Your task to perform on an android device: check android version Image 0: 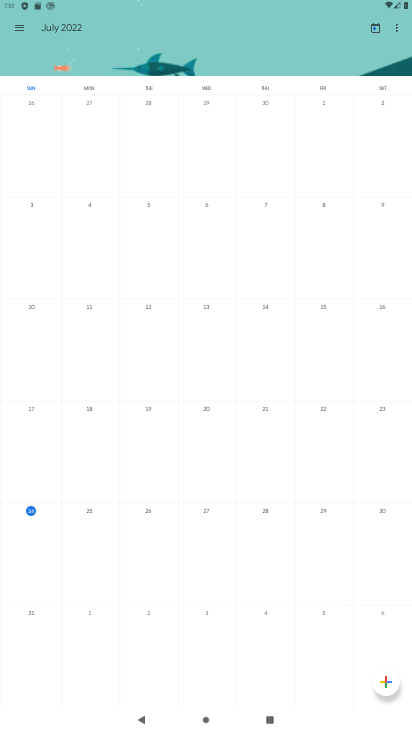
Step 0: press home button
Your task to perform on an android device: check android version Image 1: 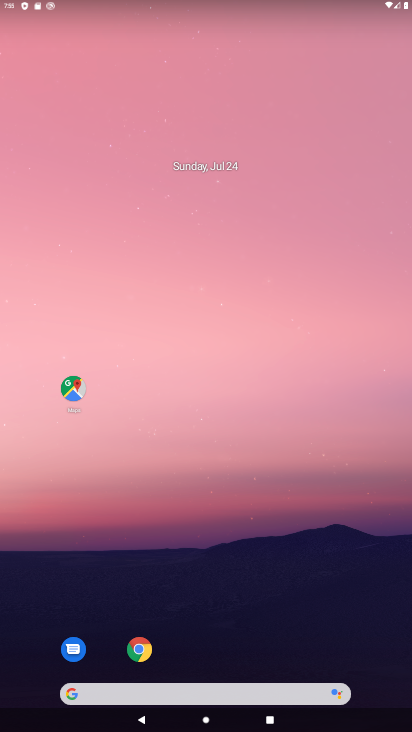
Step 1: drag from (216, 660) to (181, 81)
Your task to perform on an android device: check android version Image 2: 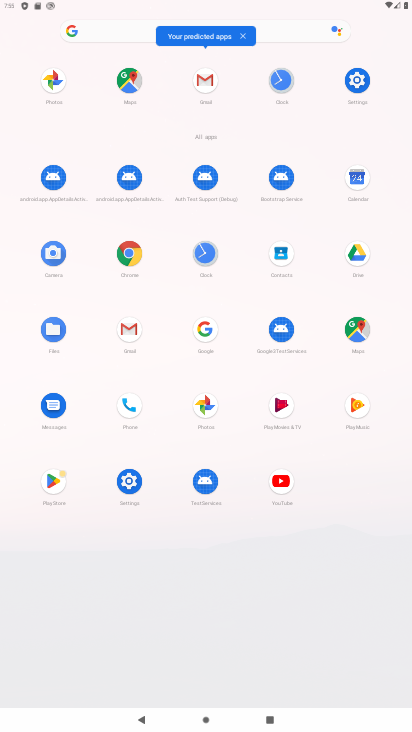
Step 2: click (124, 475)
Your task to perform on an android device: check android version Image 3: 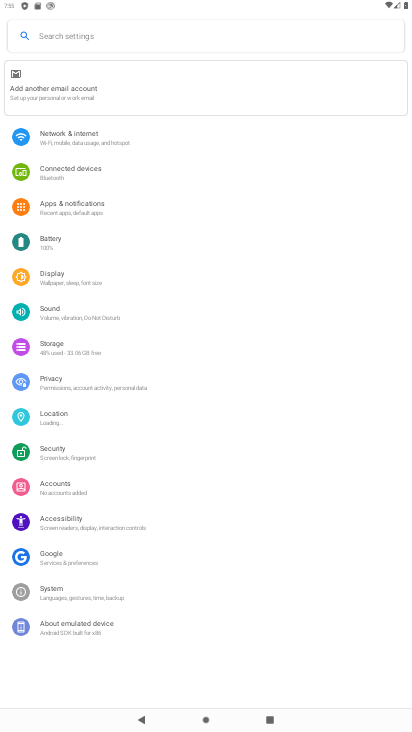
Step 3: drag from (75, 577) to (35, 277)
Your task to perform on an android device: check android version Image 4: 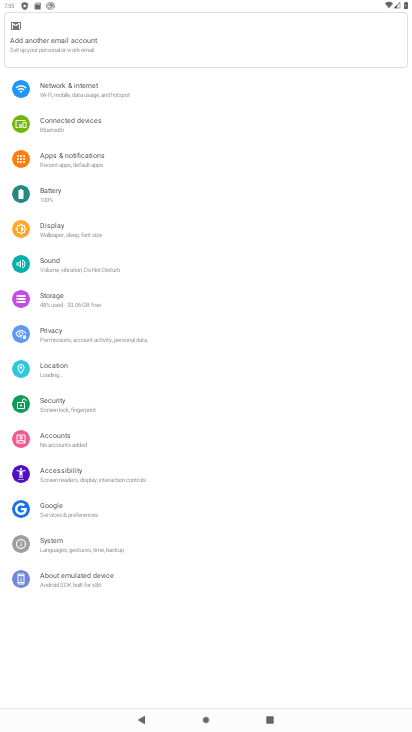
Step 4: click (63, 584)
Your task to perform on an android device: check android version Image 5: 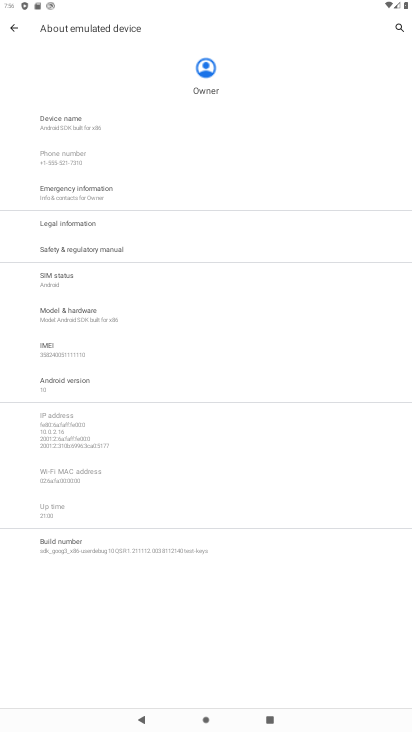
Step 5: click (93, 393)
Your task to perform on an android device: check android version Image 6: 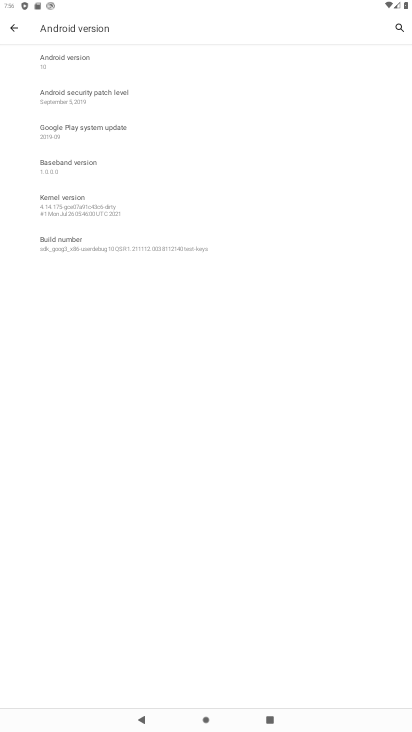
Step 6: task complete